Your task to perform on an android device: allow cookies in the chrome app Image 0: 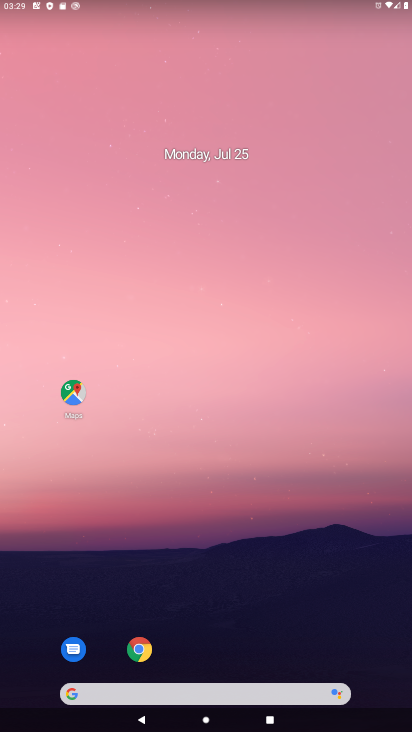
Step 0: click (140, 649)
Your task to perform on an android device: allow cookies in the chrome app Image 1: 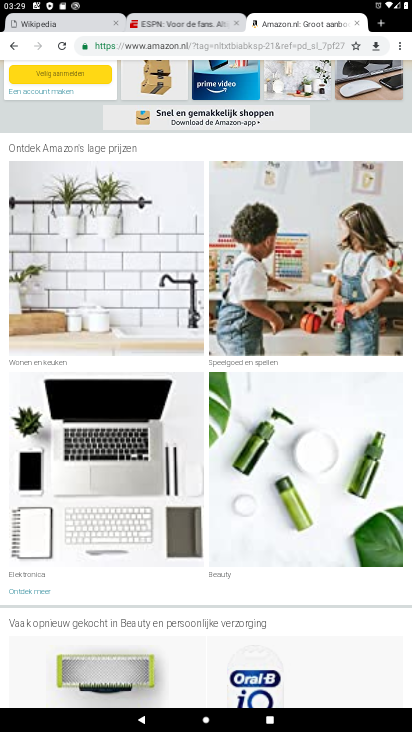
Step 1: click (399, 49)
Your task to perform on an android device: allow cookies in the chrome app Image 2: 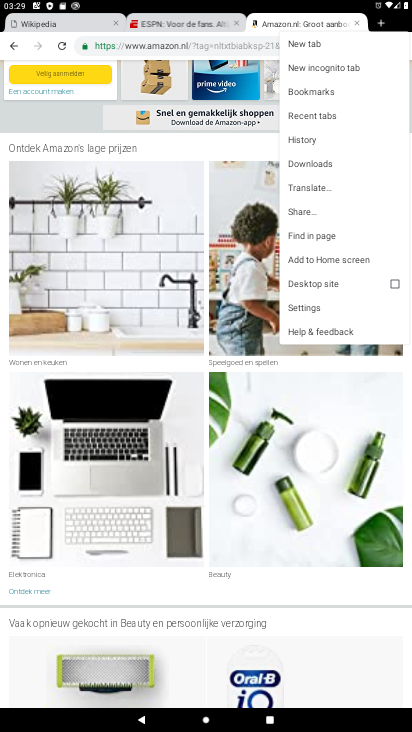
Step 2: click (310, 303)
Your task to perform on an android device: allow cookies in the chrome app Image 3: 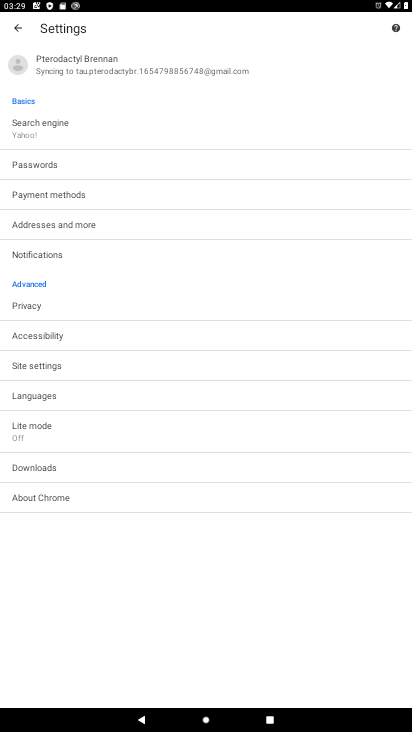
Step 3: click (29, 369)
Your task to perform on an android device: allow cookies in the chrome app Image 4: 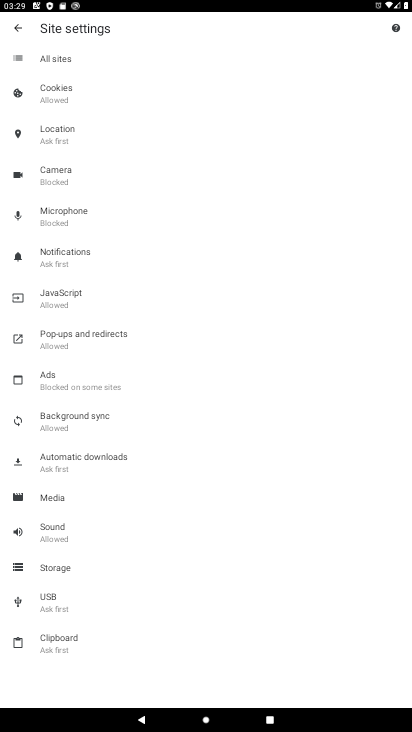
Step 4: click (55, 89)
Your task to perform on an android device: allow cookies in the chrome app Image 5: 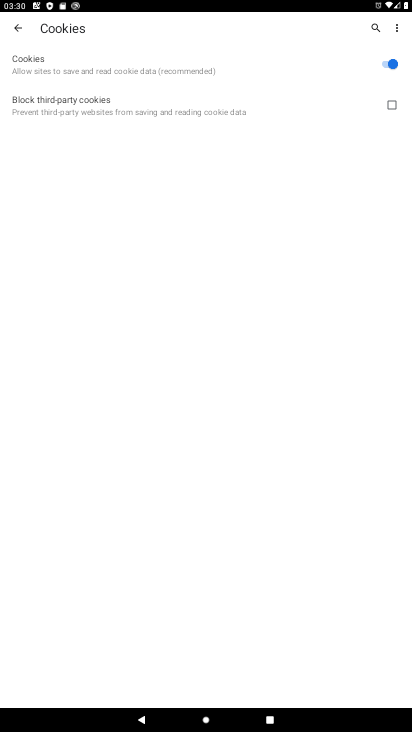
Step 5: task complete